Your task to perform on an android device: Go to Wikipedia Image 0: 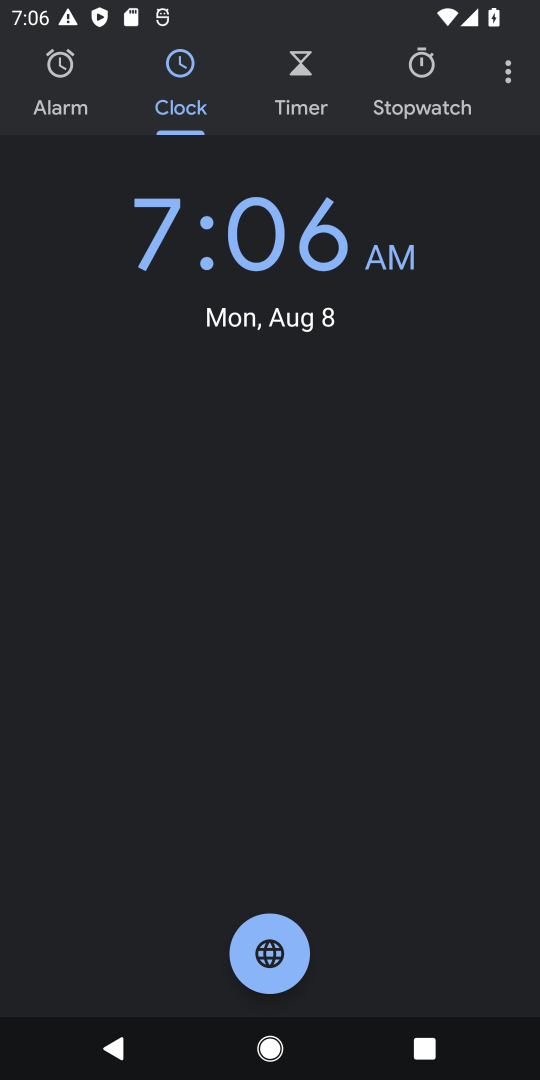
Step 0: press home button
Your task to perform on an android device: Go to Wikipedia Image 1: 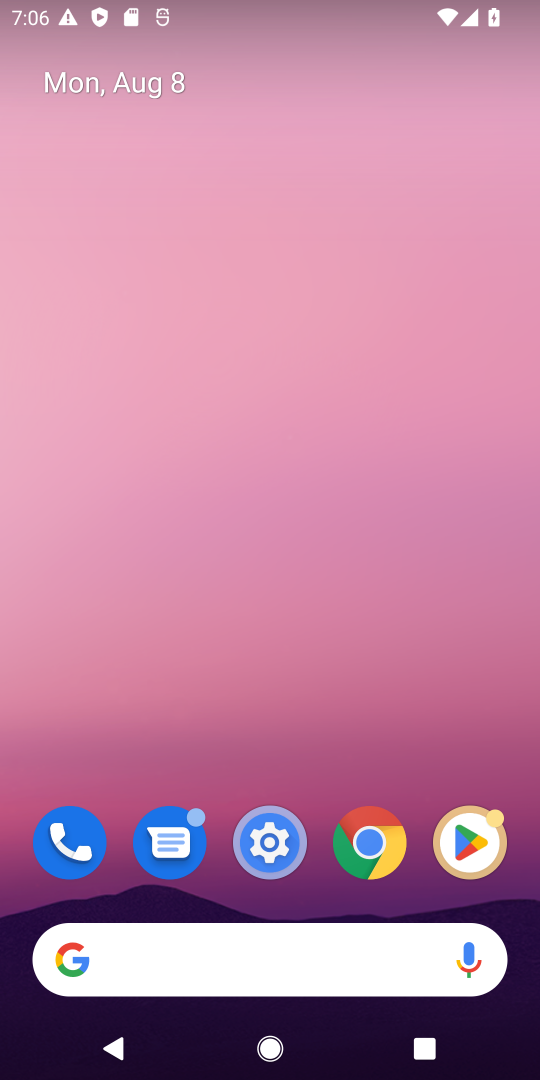
Step 1: click (363, 847)
Your task to perform on an android device: Go to Wikipedia Image 2: 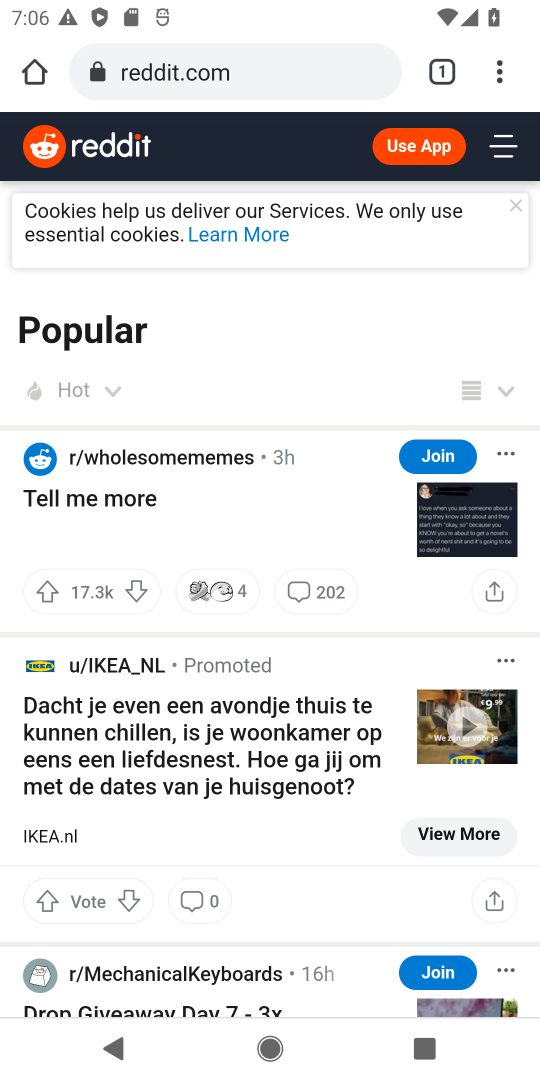
Step 2: click (499, 53)
Your task to perform on an android device: Go to Wikipedia Image 3: 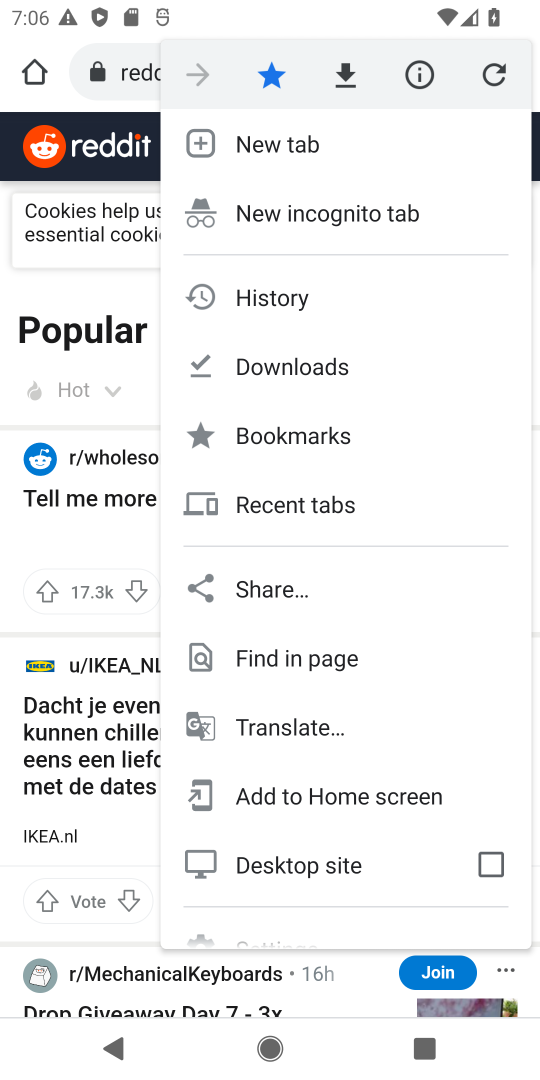
Step 3: click (276, 144)
Your task to perform on an android device: Go to Wikipedia Image 4: 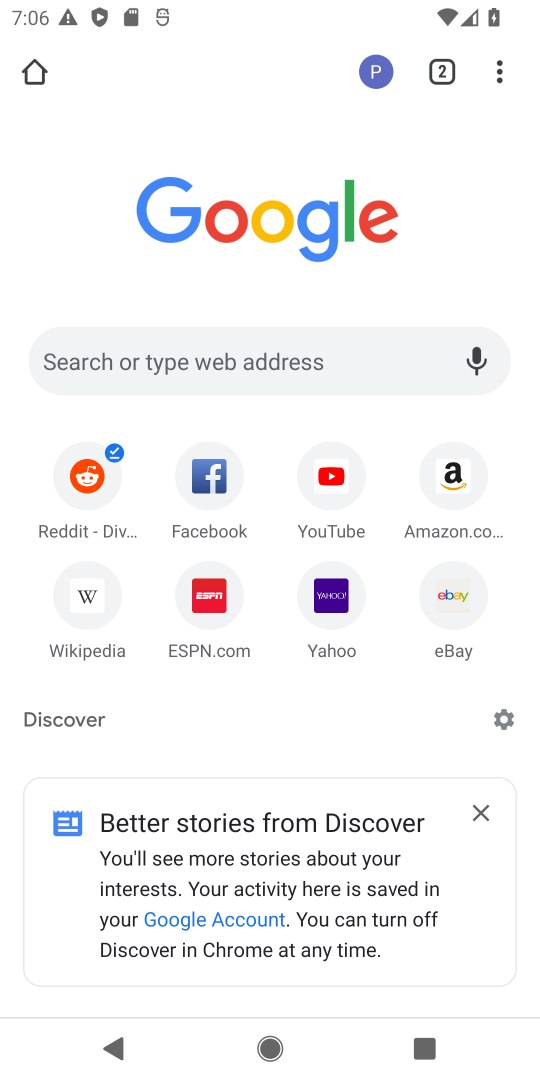
Step 4: click (83, 593)
Your task to perform on an android device: Go to Wikipedia Image 5: 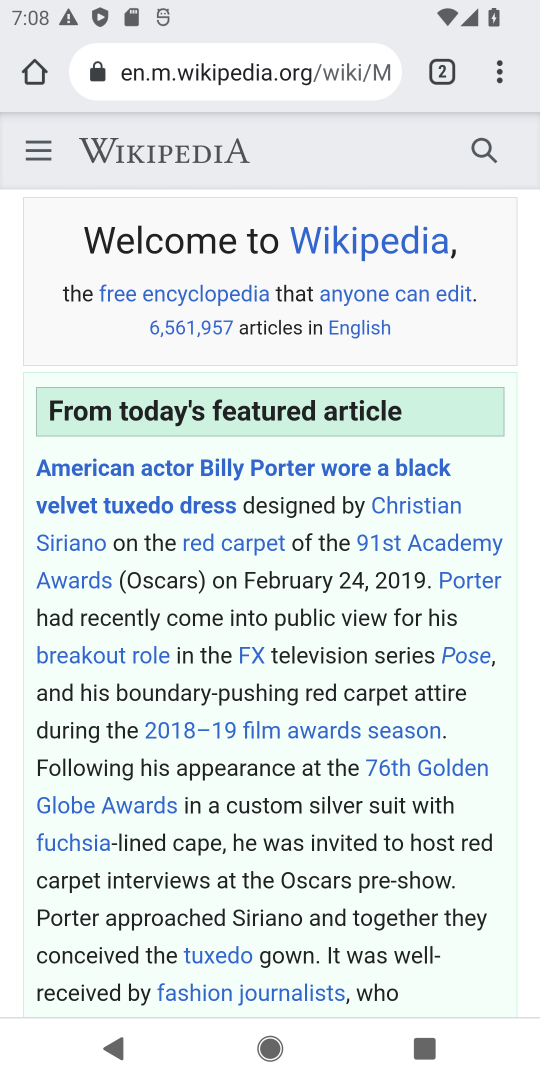
Step 5: task complete